Your task to perform on an android device: Open Google Maps and go to "Timeline" Image 0: 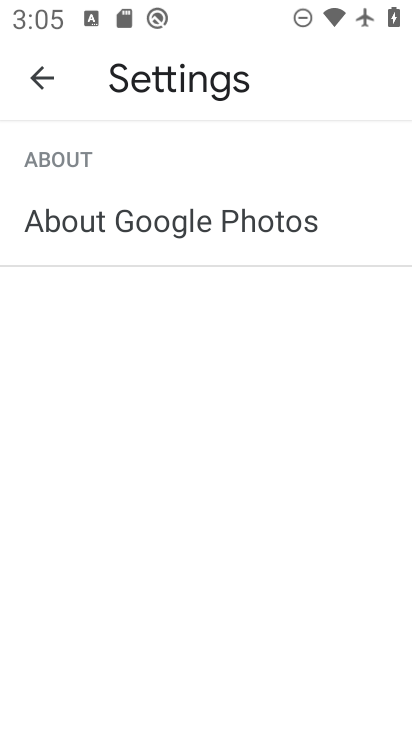
Step 0: press home button
Your task to perform on an android device: Open Google Maps and go to "Timeline" Image 1: 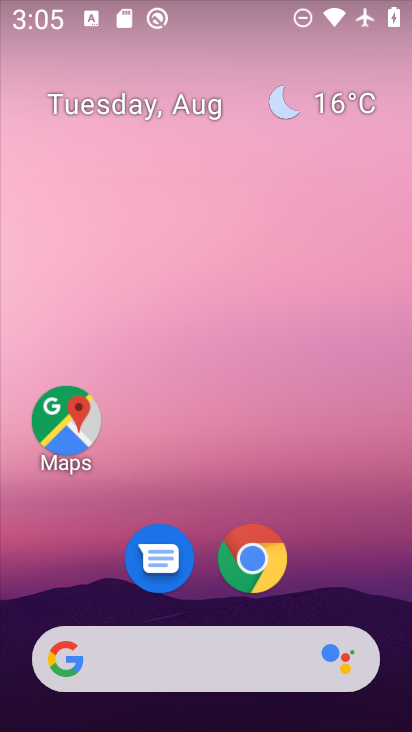
Step 1: click (85, 437)
Your task to perform on an android device: Open Google Maps and go to "Timeline" Image 2: 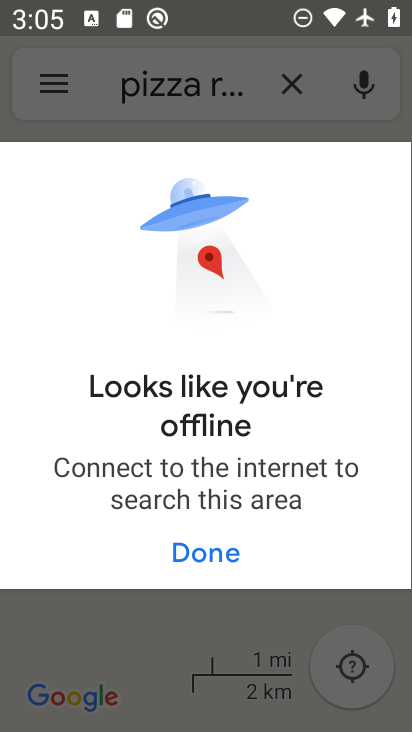
Step 2: click (189, 554)
Your task to perform on an android device: Open Google Maps and go to "Timeline" Image 3: 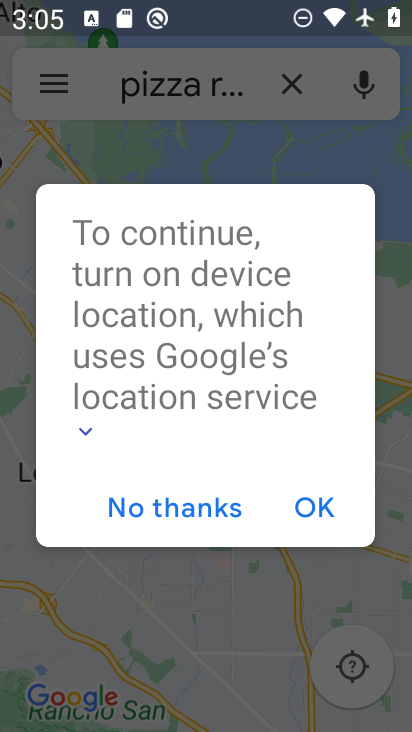
Step 3: click (307, 489)
Your task to perform on an android device: Open Google Maps and go to "Timeline" Image 4: 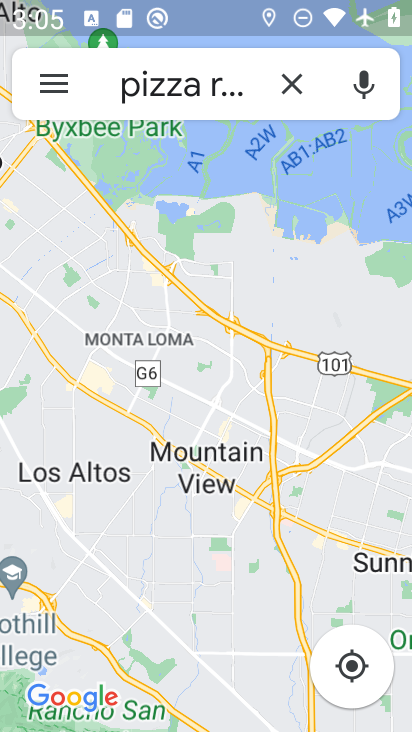
Step 4: click (66, 81)
Your task to perform on an android device: Open Google Maps and go to "Timeline" Image 5: 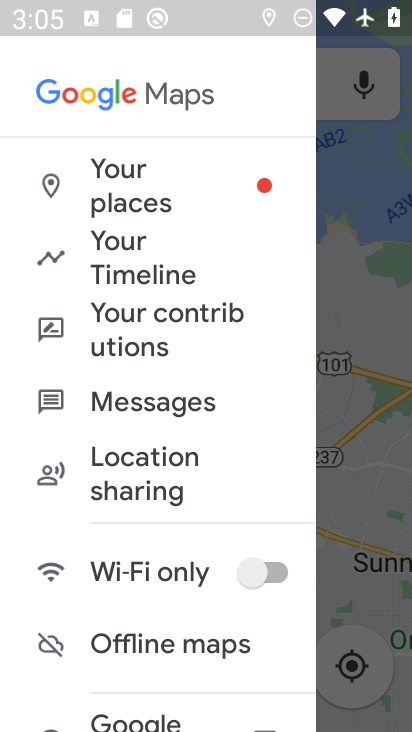
Step 5: click (185, 282)
Your task to perform on an android device: Open Google Maps and go to "Timeline" Image 6: 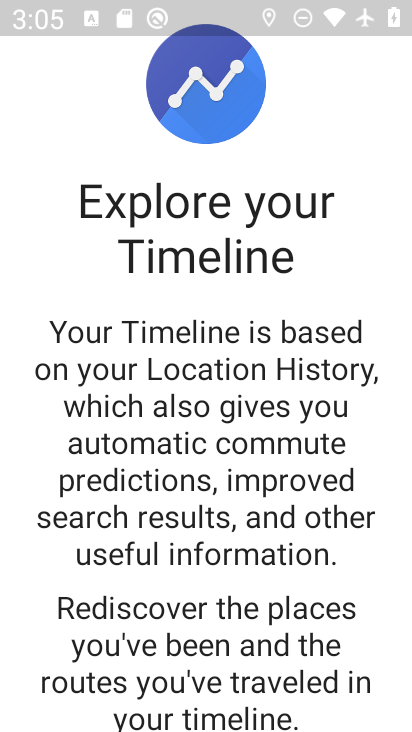
Step 6: drag from (281, 618) to (293, 252)
Your task to perform on an android device: Open Google Maps and go to "Timeline" Image 7: 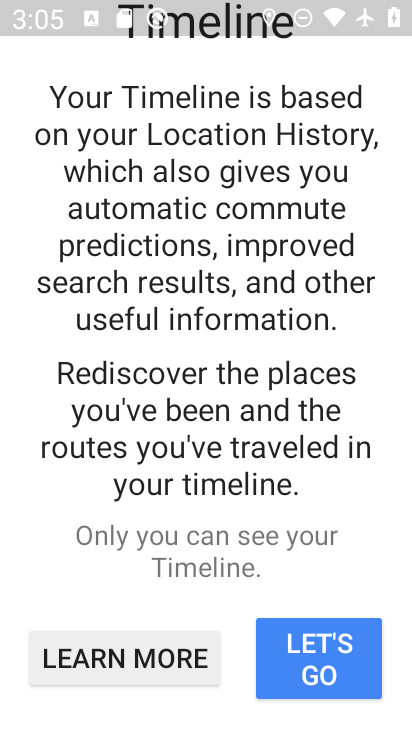
Step 7: click (298, 672)
Your task to perform on an android device: Open Google Maps and go to "Timeline" Image 8: 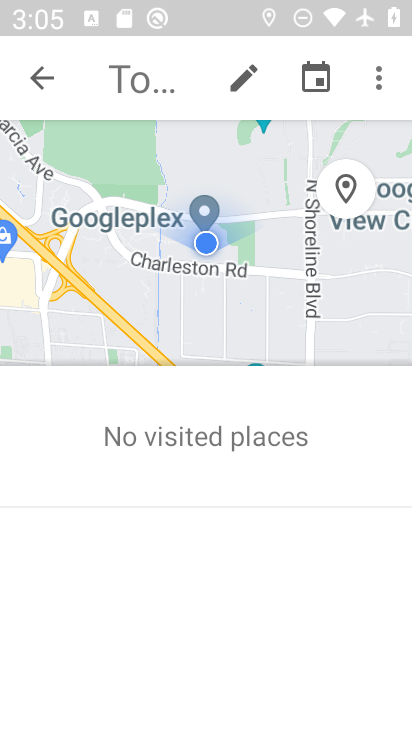
Step 8: task complete